Your task to perform on an android device: Go to notification settings Image 0: 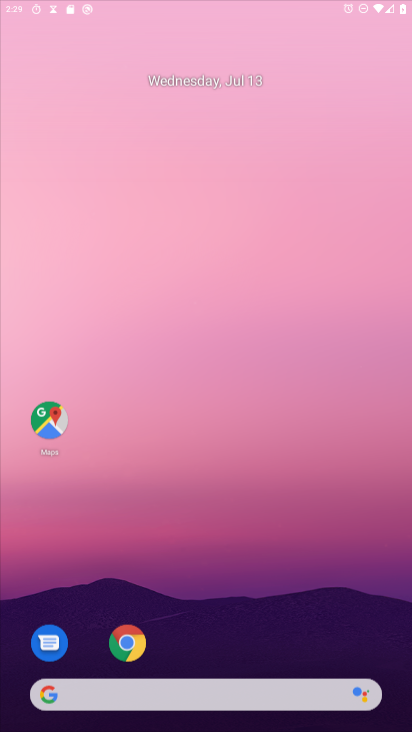
Step 0: press home button
Your task to perform on an android device: Go to notification settings Image 1: 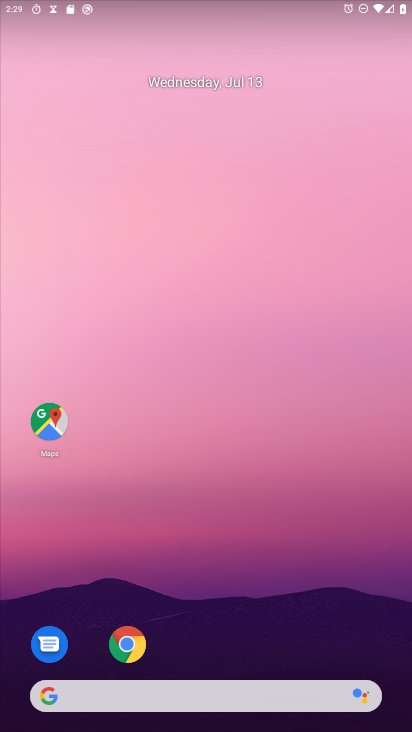
Step 1: drag from (291, 644) to (307, 195)
Your task to perform on an android device: Go to notification settings Image 2: 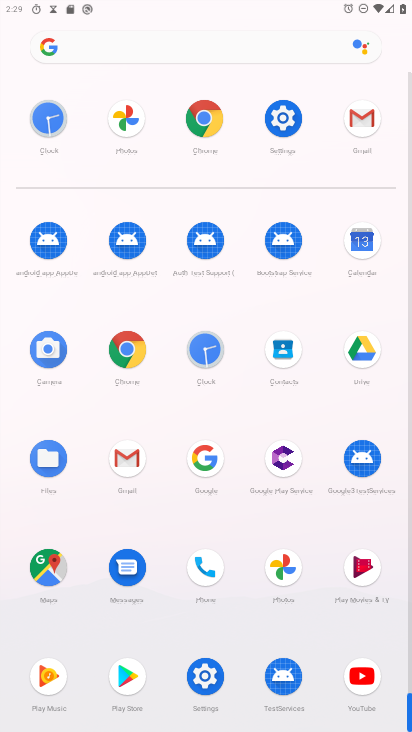
Step 2: click (278, 124)
Your task to perform on an android device: Go to notification settings Image 3: 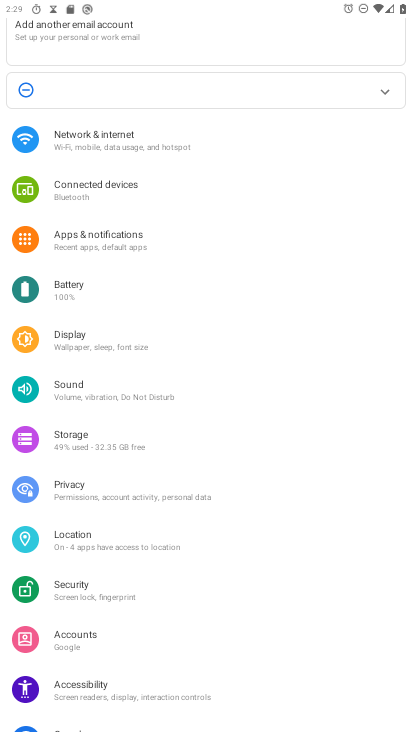
Step 3: click (106, 237)
Your task to perform on an android device: Go to notification settings Image 4: 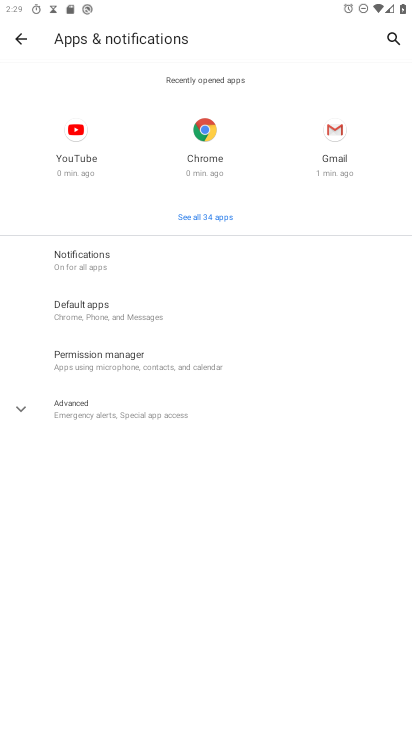
Step 4: click (97, 260)
Your task to perform on an android device: Go to notification settings Image 5: 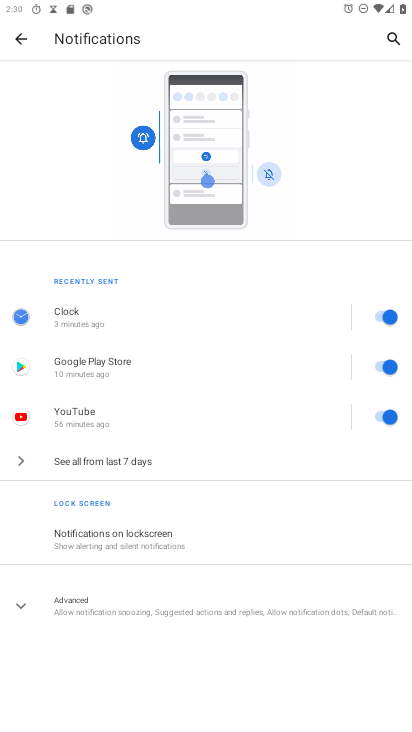
Step 5: task complete